Your task to perform on an android device: uninstall "DoorDash - Dasher" Image 0: 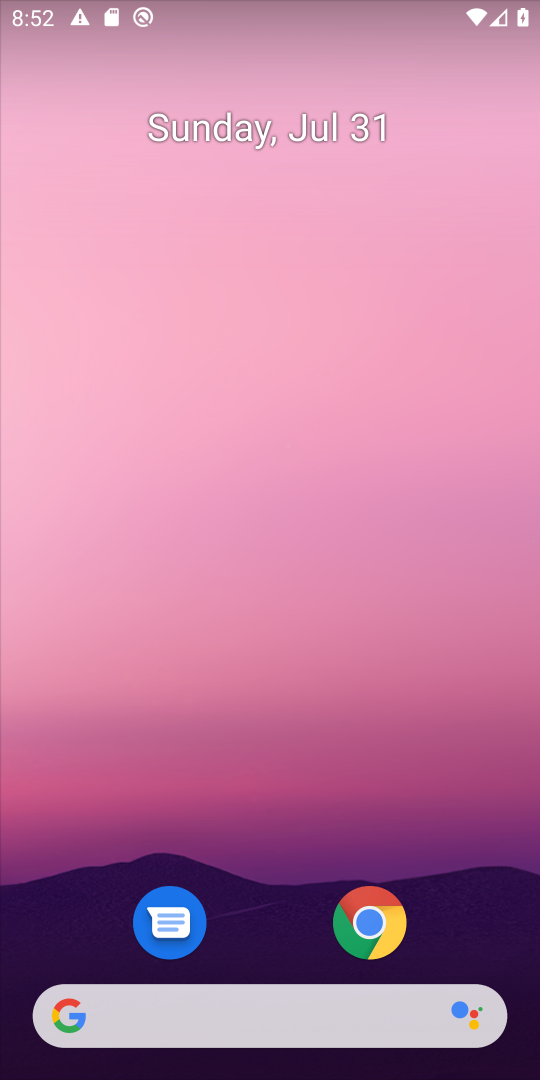
Step 0: drag from (325, 978) to (325, 42)
Your task to perform on an android device: uninstall "DoorDash - Dasher" Image 1: 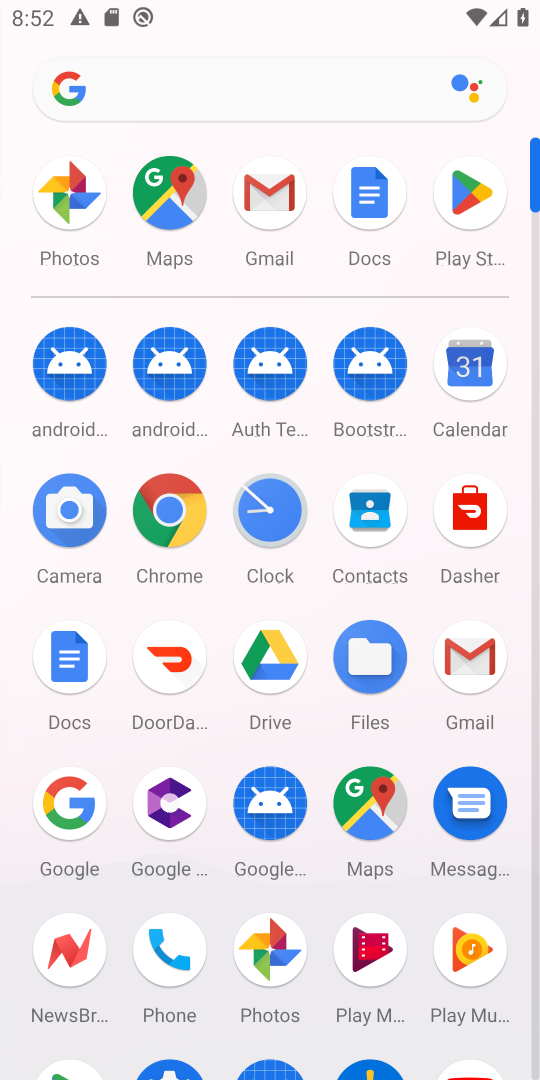
Step 1: click (475, 202)
Your task to perform on an android device: uninstall "DoorDash - Dasher" Image 2: 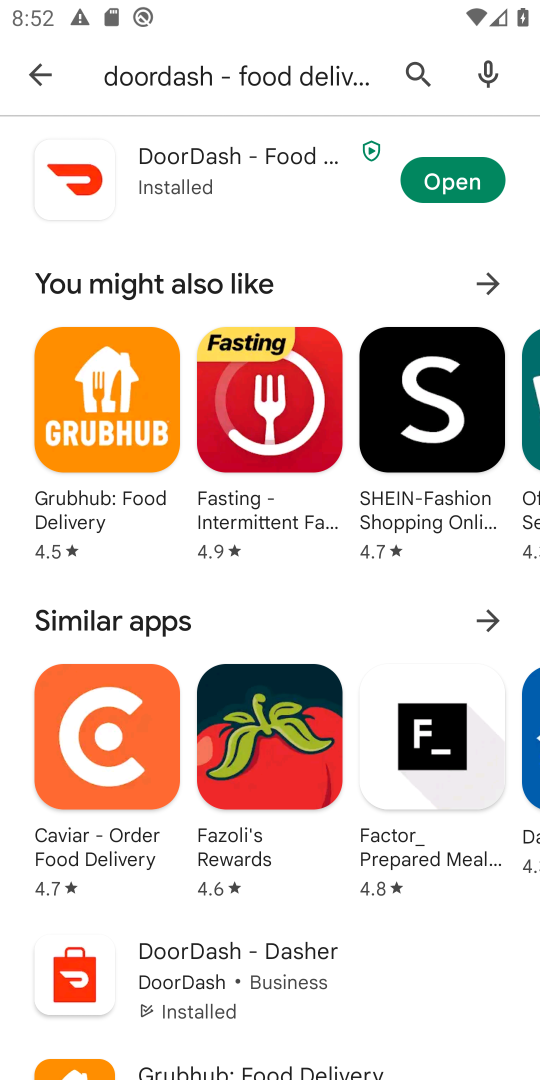
Step 2: click (411, 68)
Your task to perform on an android device: uninstall "DoorDash - Dasher" Image 3: 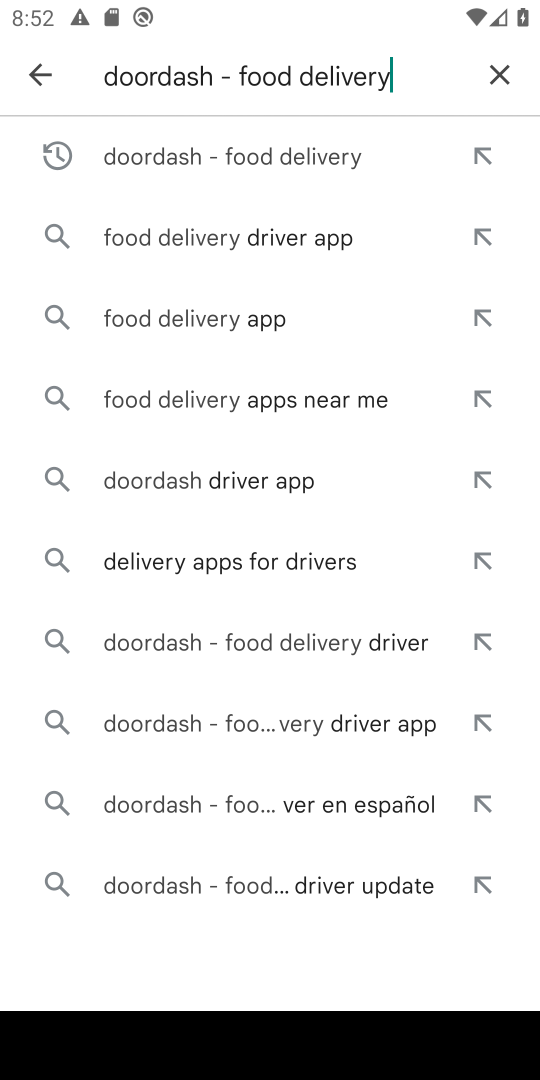
Step 3: click (499, 61)
Your task to perform on an android device: uninstall "DoorDash - Dasher" Image 4: 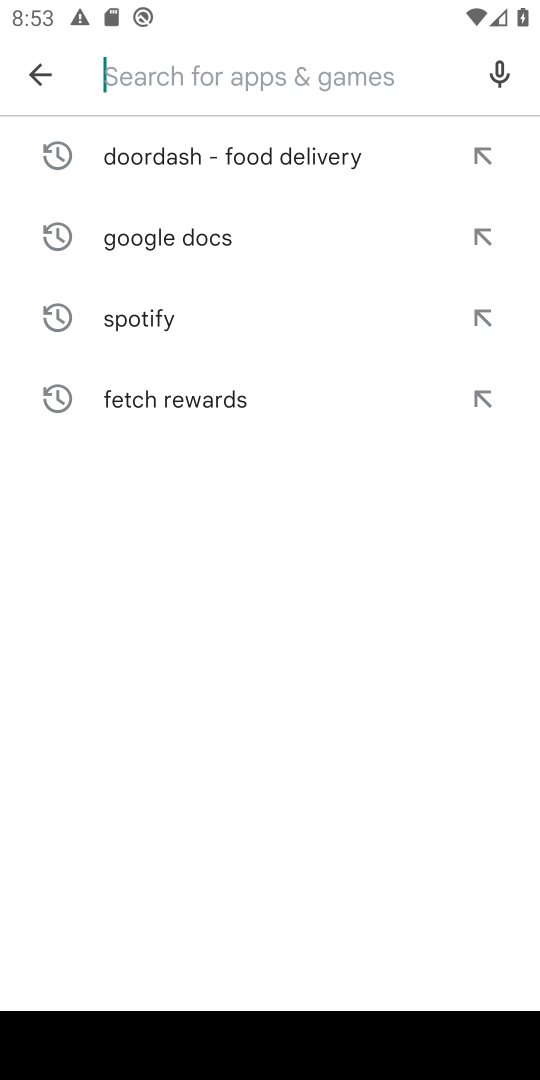
Step 4: type ""
Your task to perform on an android device: uninstall "DoorDash - Dasher" Image 5: 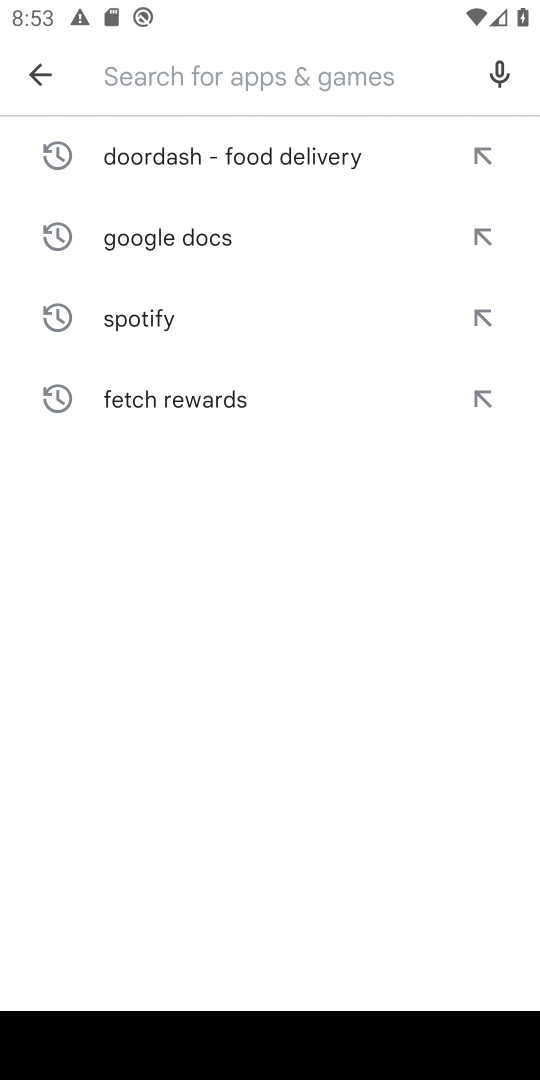
Step 5: type "DoorDash - Dasher"
Your task to perform on an android device: uninstall "DoorDash - Dasher" Image 6: 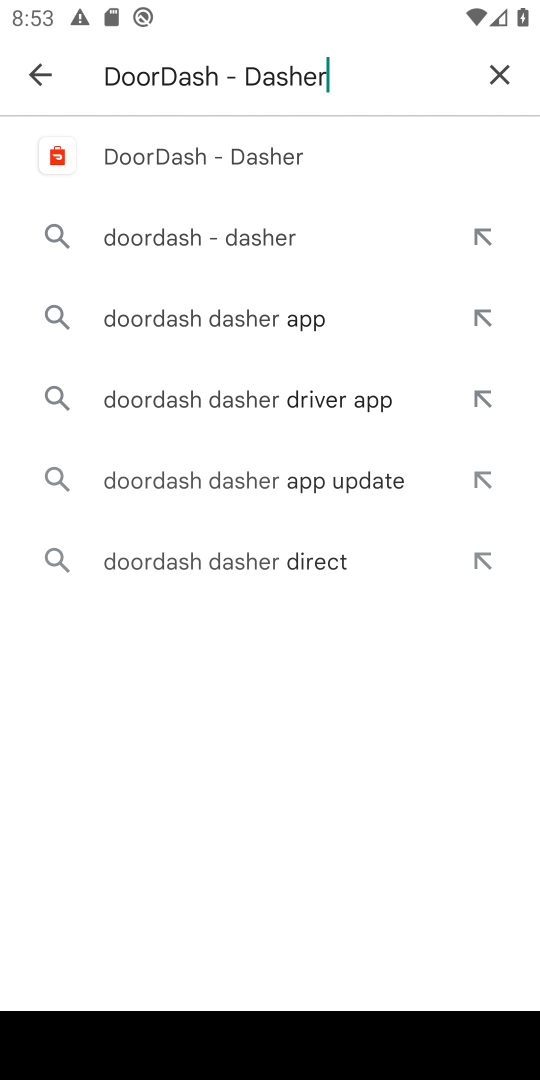
Step 6: type ""
Your task to perform on an android device: uninstall "DoorDash - Dasher" Image 7: 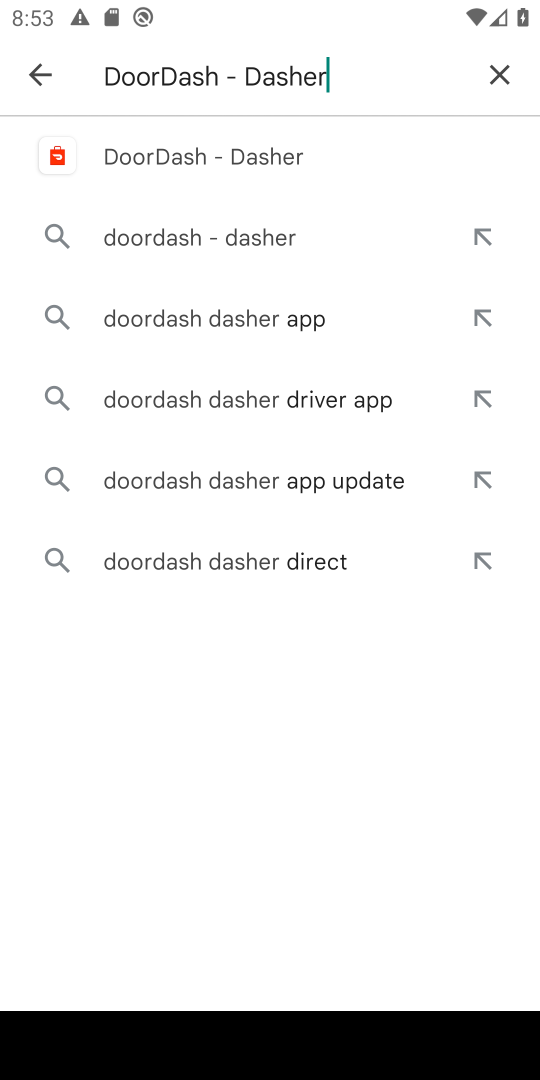
Step 7: click (260, 156)
Your task to perform on an android device: uninstall "DoorDash - Dasher" Image 8: 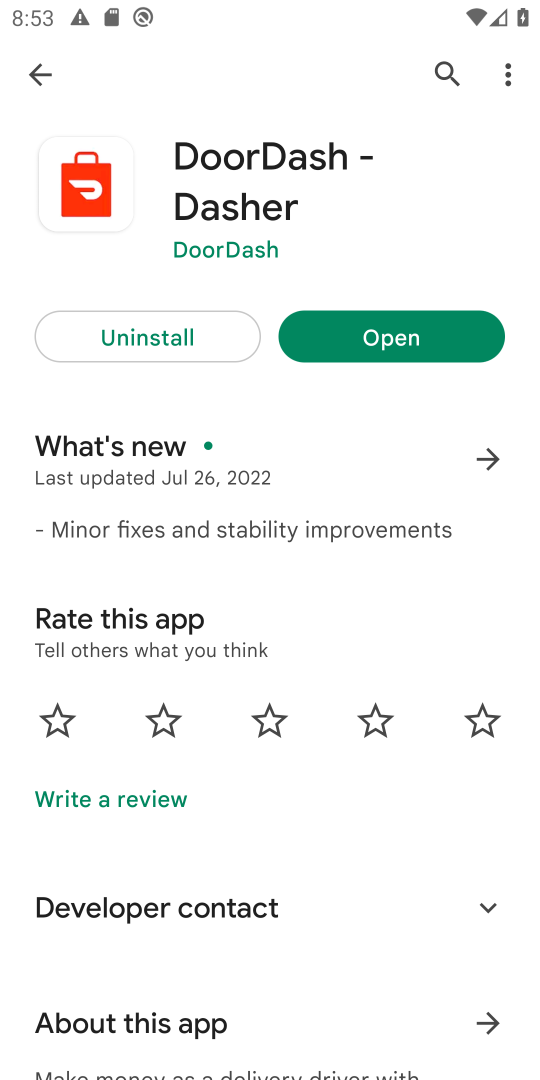
Step 8: click (185, 339)
Your task to perform on an android device: uninstall "DoorDash - Dasher" Image 9: 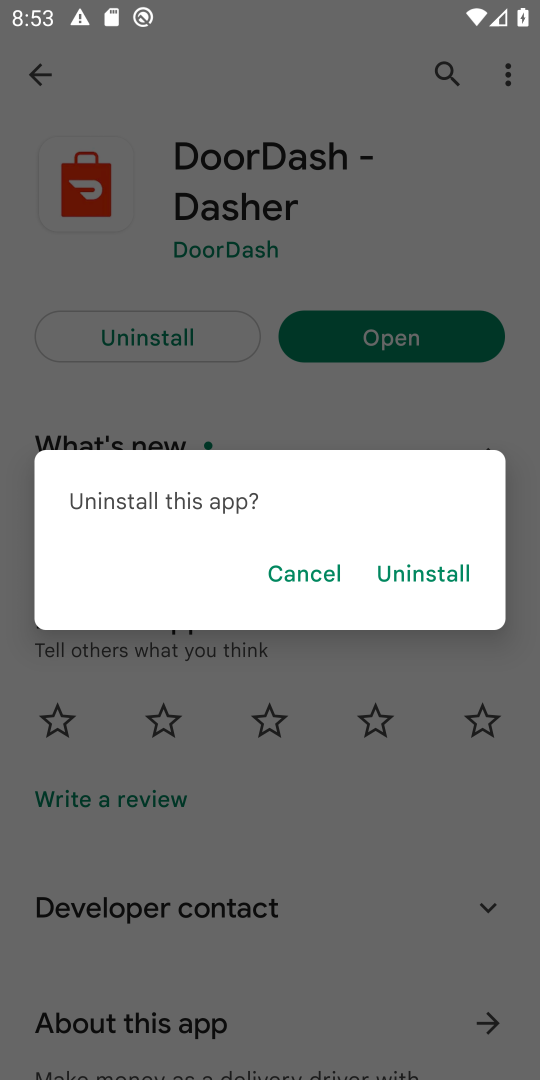
Step 9: click (428, 568)
Your task to perform on an android device: uninstall "DoorDash - Dasher" Image 10: 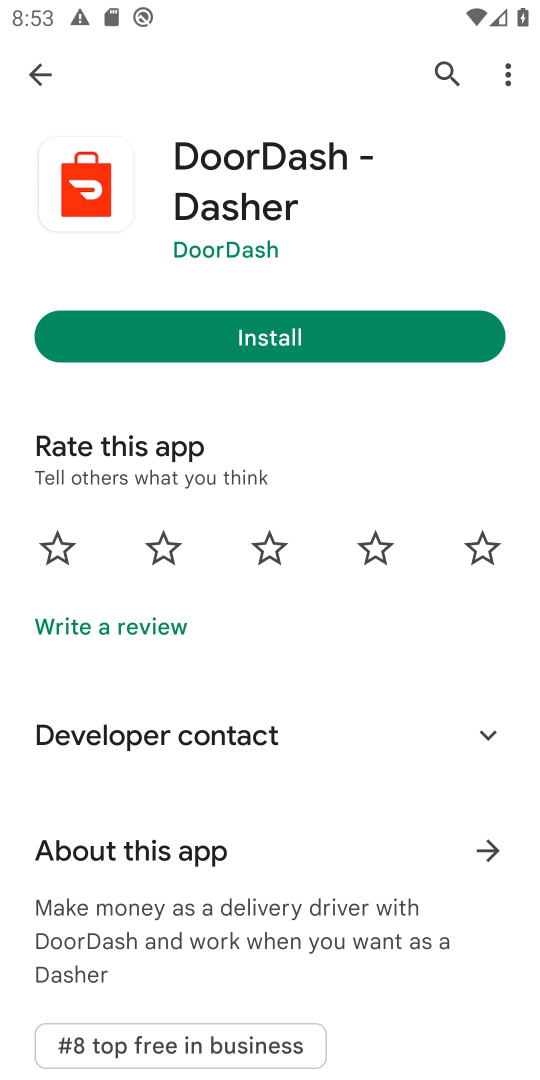
Step 10: task complete